Your task to perform on an android device: set the timer Image 0: 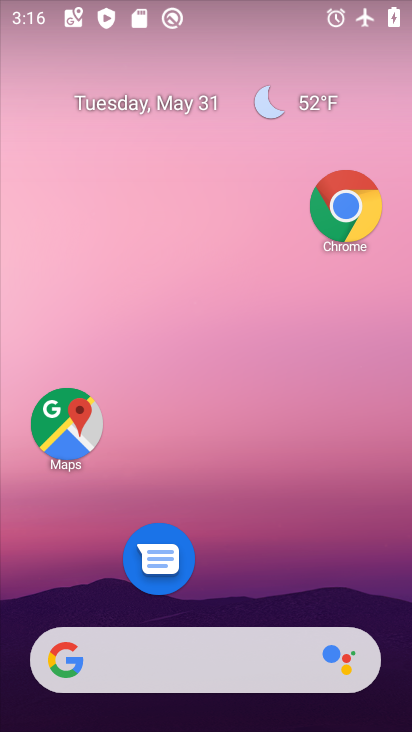
Step 0: drag from (273, 595) to (270, 236)
Your task to perform on an android device: set the timer Image 1: 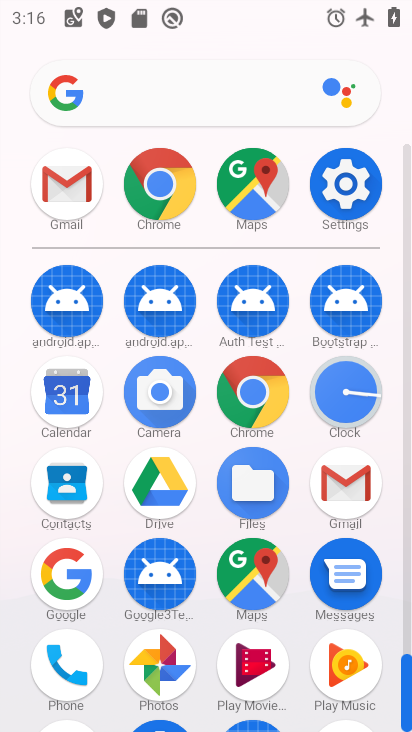
Step 1: click (346, 394)
Your task to perform on an android device: set the timer Image 2: 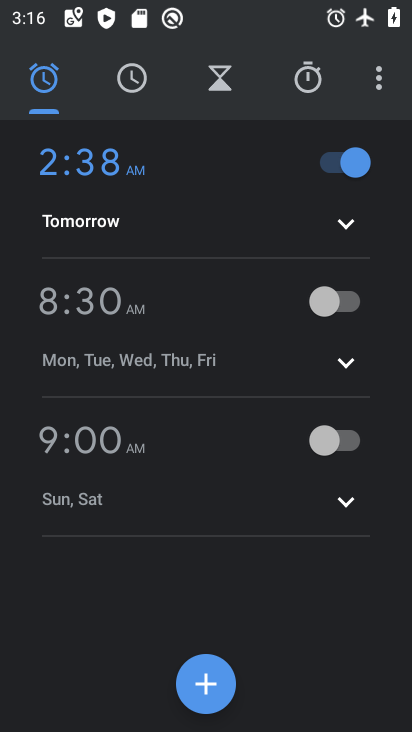
Step 2: click (203, 89)
Your task to perform on an android device: set the timer Image 3: 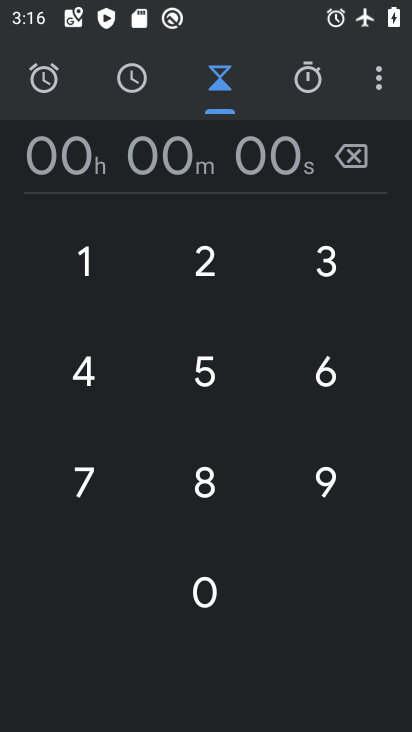
Step 3: click (178, 338)
Your task to perform on an android device: set the timer Image 4: 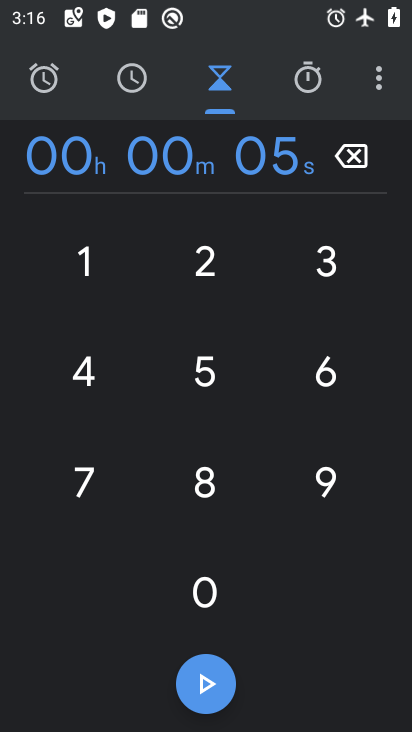
Step 4: click (195, 498)
Your task to perform on an android device: set the timer Image 5: 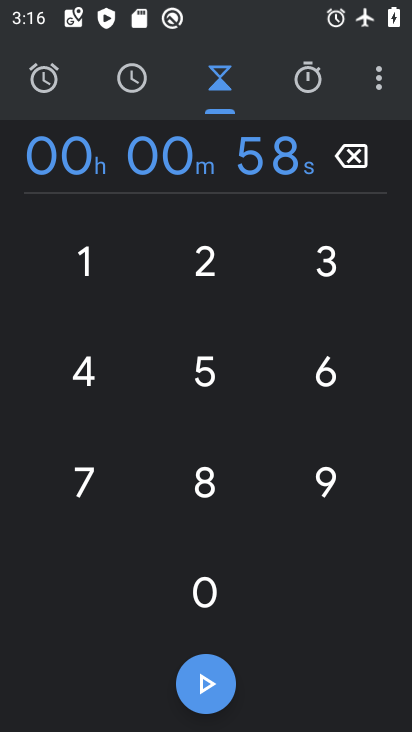
Step 5: click (296, 373)
Your task to perform on an android device: set the timer Image 6: 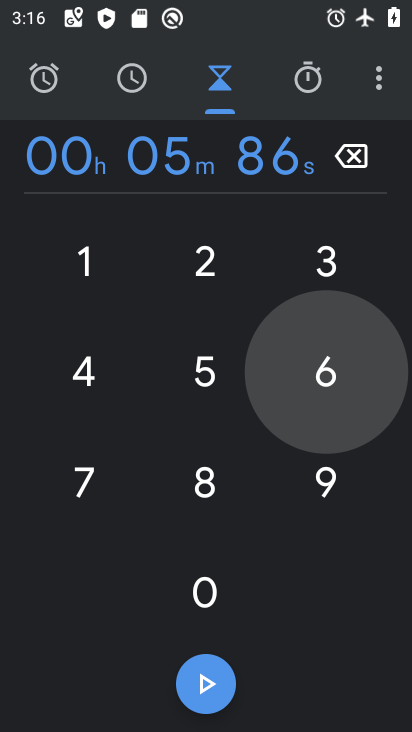
Step 6: click (216, 361)
Your task to perform on an android device: set the timer Image 7: 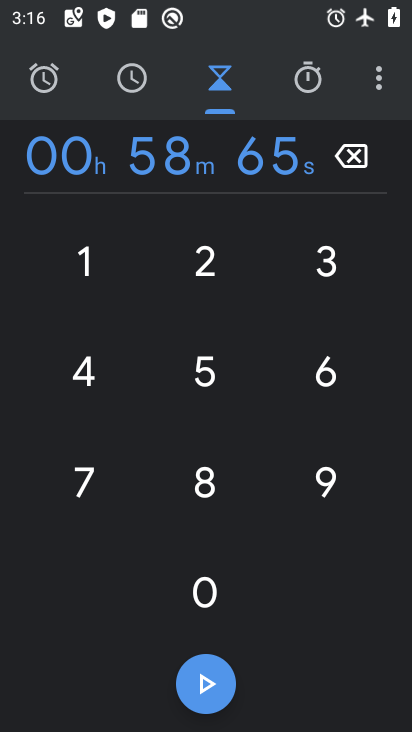
Step 7: click (210, 303)
Your task to perform on an android device: set the timer Image 8: 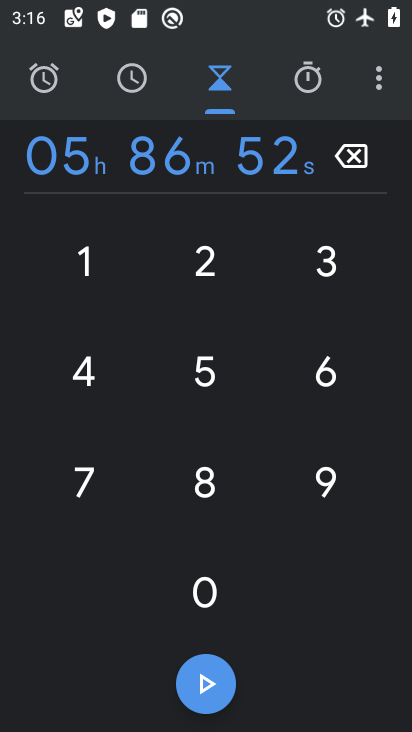
Step 8: click (227, 691)
Your task to perform on an android device: set the timer Image 9: 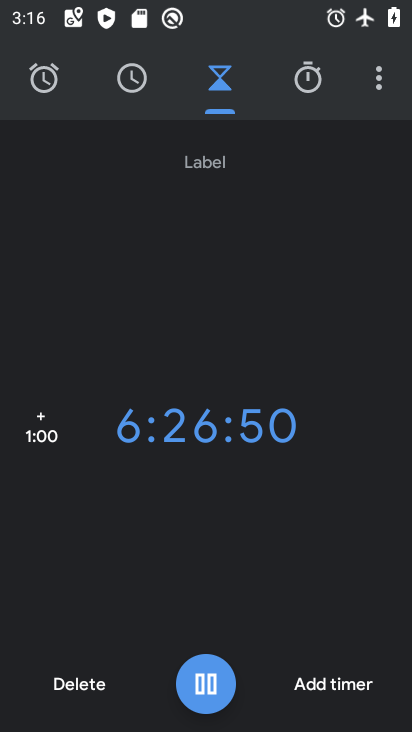
Step 9: task complete